Your task to perform on an android device: Go to Google maps Image 0: 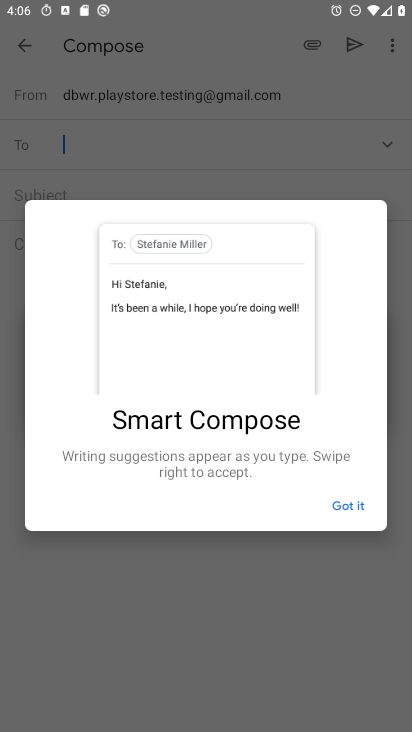
Step 0: press home button
Your task to perform on an android device: Go to Google maps Image 1: 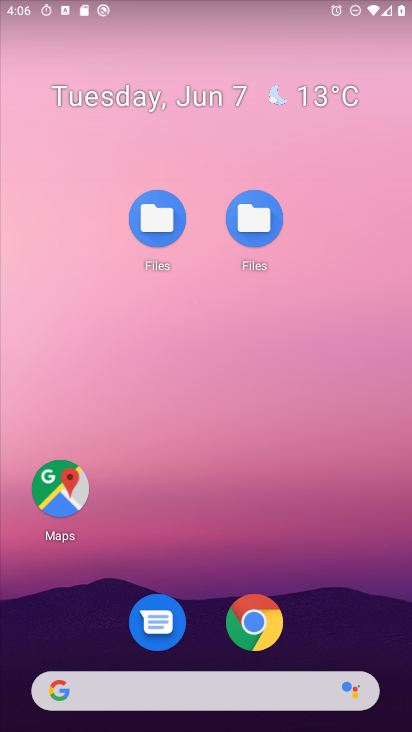
Step 1: click (54, 493)
Your task to perform on an android device: Go to Google maps Image 2: 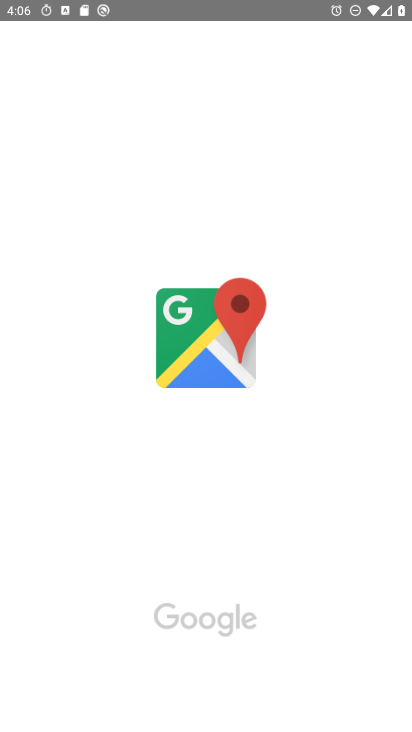
Step 2: task complete